Your task to perform on an android device: Open eBay Image 0: 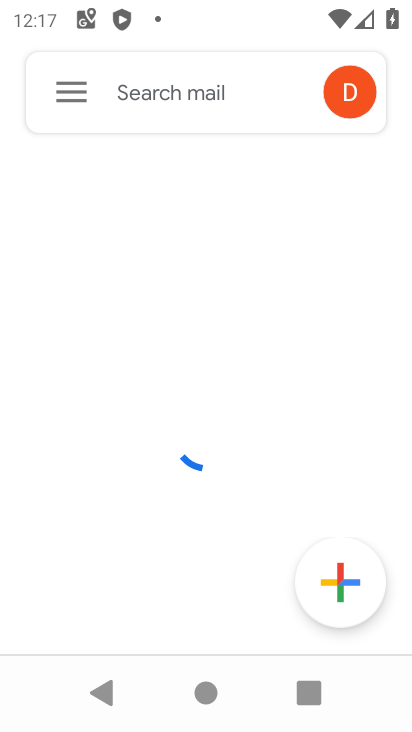
Step 0: press home button
Your task to perform on an android device: Open eBay Image 1: 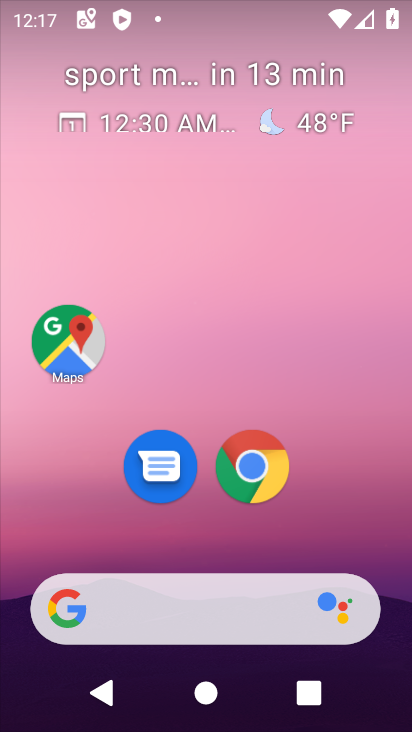
Step 1: click (259, 471)
Your task to perform on an android device: Open eBay Image 2: 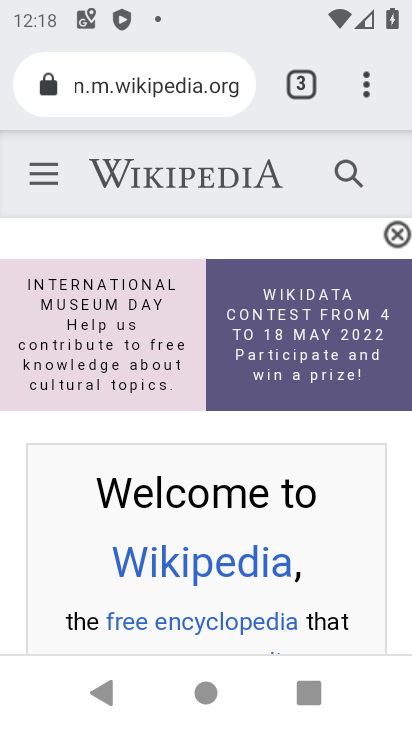
Step 2: click (114, 80)
Your task to perform on an android device: Open eBay Image 3: 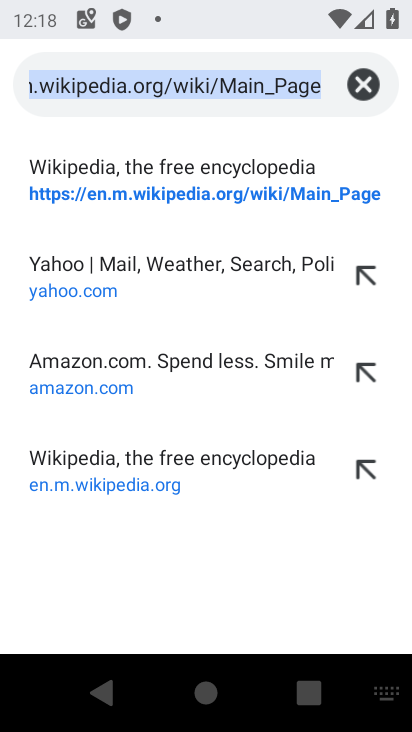
Step 3: click (362, 86)
Your task to perform on an android device: Open eBay Image 4: 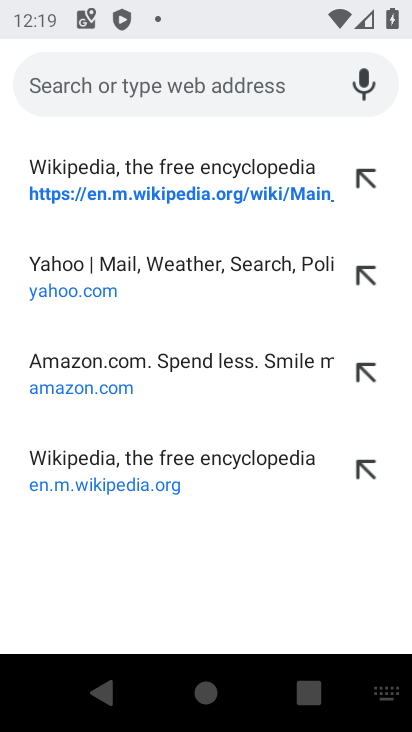
Step 4: type "ebay"
Your task to perform on an android device: Open eBay Image 5: 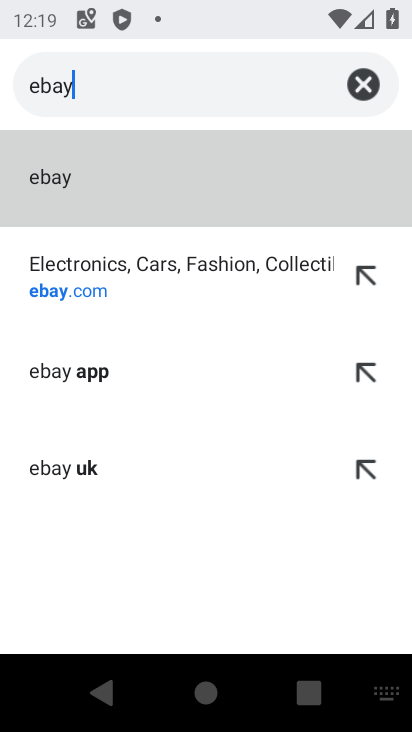
Step 5: click (103, 275)
Your task to perform on an android device: Open eBay Image 6: 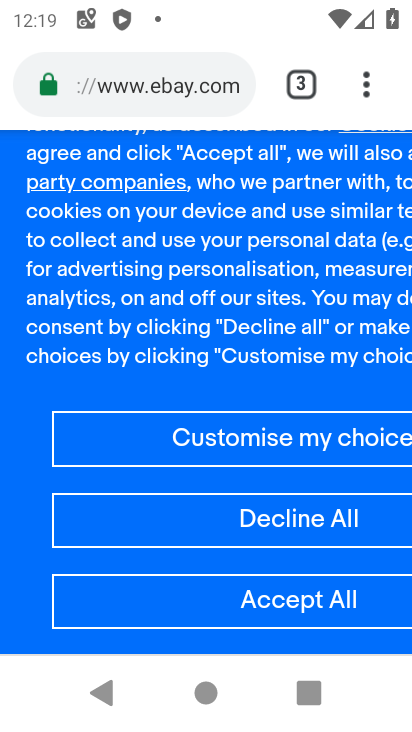
Step 6: task complete